Your task to perform on an android device: refresh tabs in the chrome app Image 0: 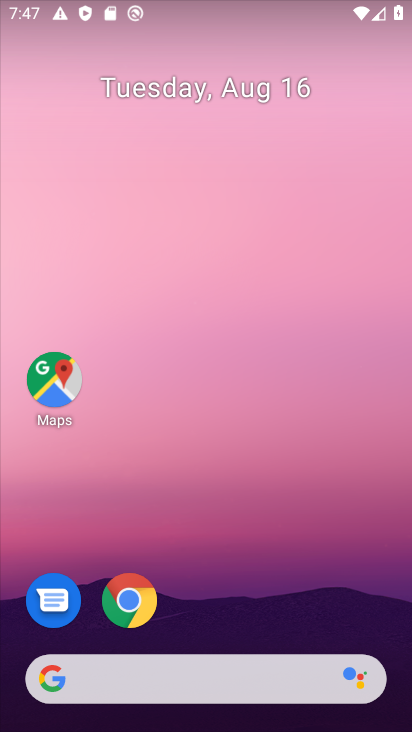
Step 0: drag from (222, 628) to (367, 166)
Your task to perform on an android device: refresh tabs in the chrome app Image 1: 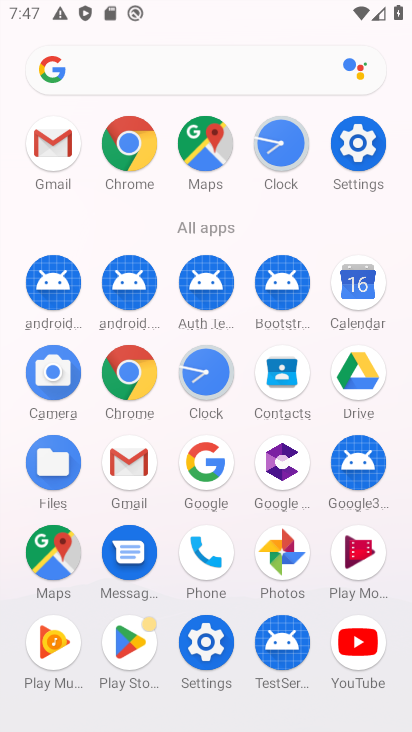
Step 1: click (108, 133)
Your task to perform on an android device: refresh tabs in the chrome app Image 2: 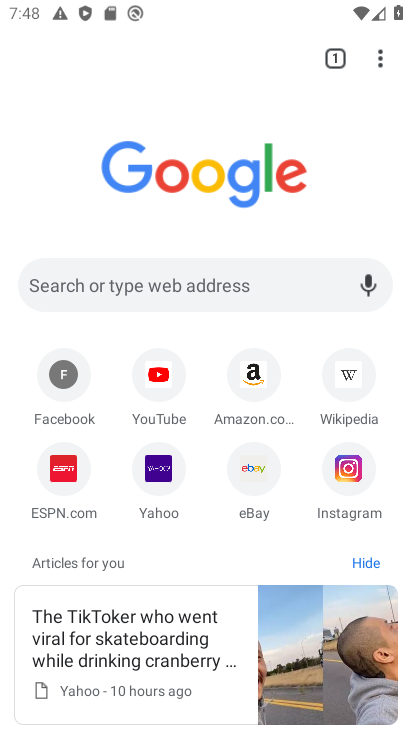
Step 2: click (386, 64)
Your task to perform on an android device: refresh tabs in the chrome app Image 3: 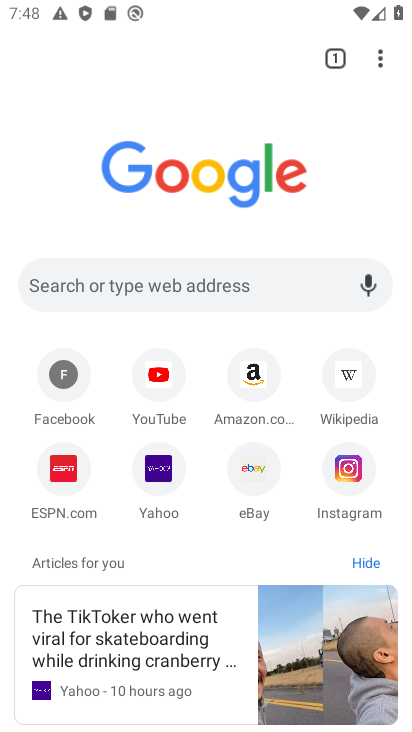
Step 3: task complete